Your task to perform on an android device: Go to CNN.com Image 0: 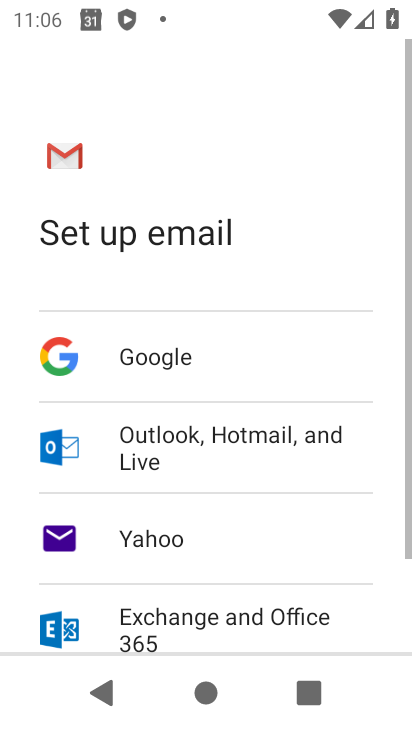
Step 0: press home button
Your task to perform on an android device: Go to CNN.com Image 1: 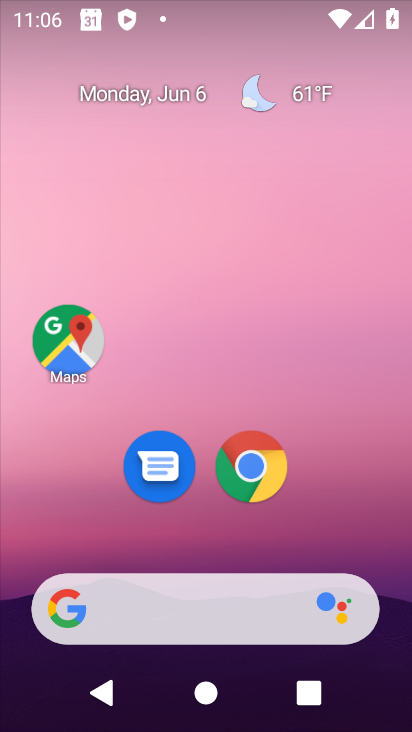
Step 1: click (250, 483)
Your task to perform on an android device: Go to CNN.com Image 2: 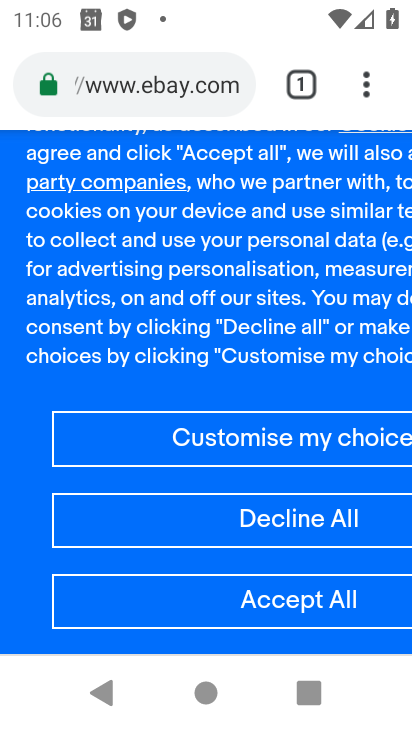
Step 2: click (108, 79)
Your task to perform on an android device: Go to CNN.com Image 3: 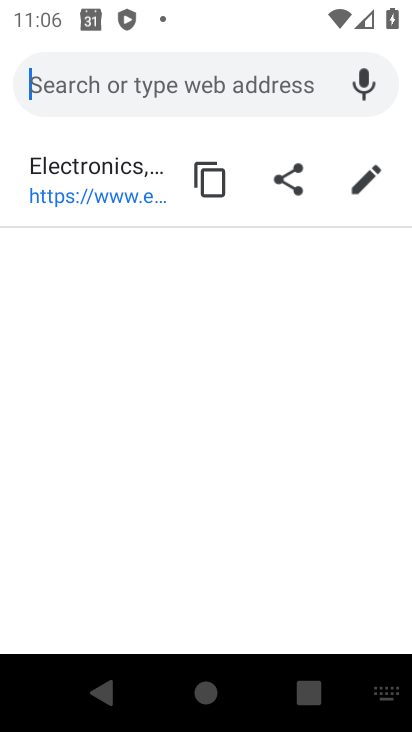
Step 3: type " CNN.com"
Your task to perform on an android device: Go to CNN.com Image 4: 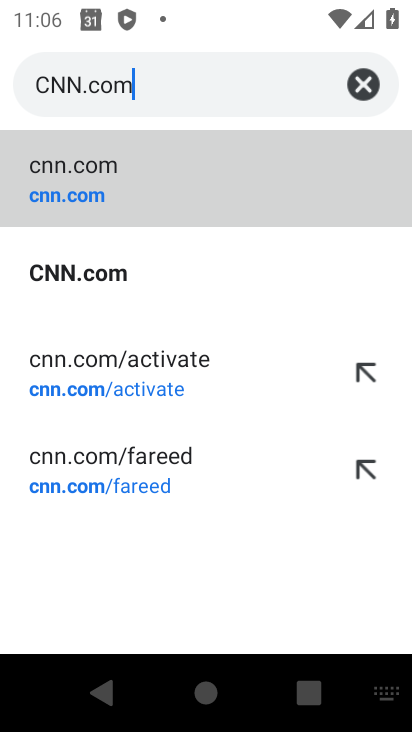
Step 4: click (315, 203)
Your task to perform on an android device: Go to CNN.com Image 5: 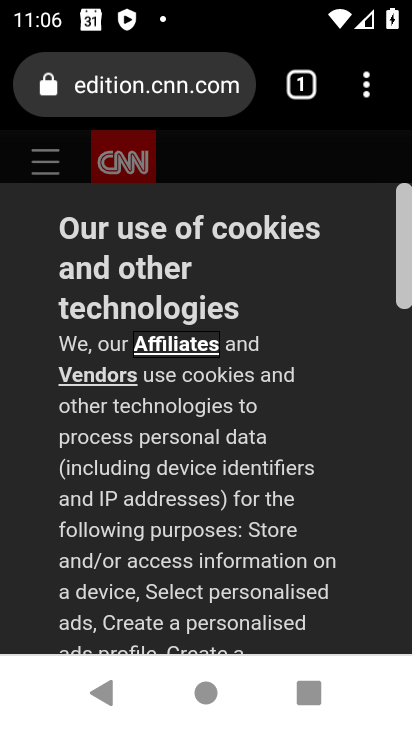
Step 5: task complete